Your task to perform on an android device: Set the phone to "Do not disturb". Image 0: 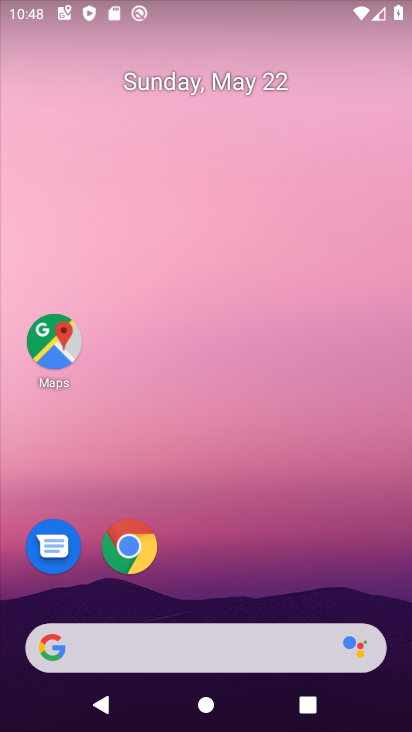
Step 0: drag from (191, 607) to (226, 6)
Your task to perform on an android device: Set the phone to "Do not disturb". Image 1: 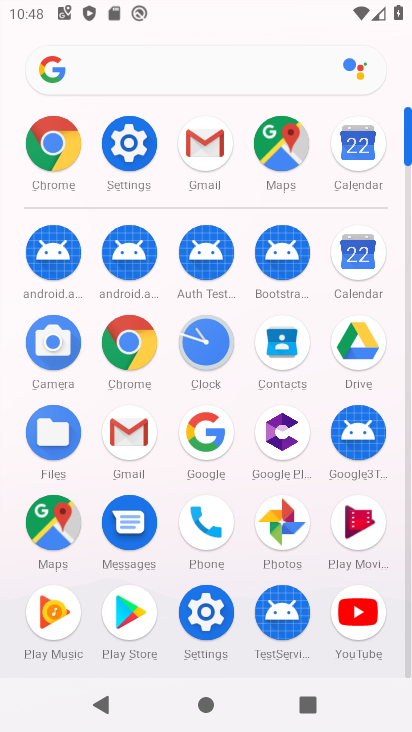
Step 1: click (214, 604)
Your task to perform on an android device: Set the phone to "Do not disturb". Image 2: 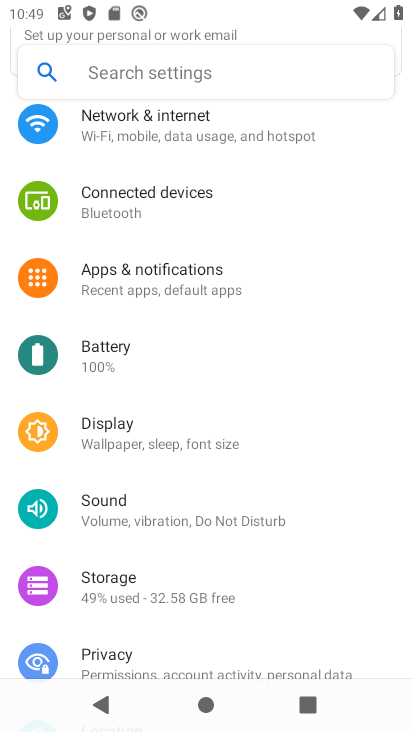
Step 2: click (197, 527)
Your task to perform on an android device: Set the phone to "Do not disturb". Image 3: 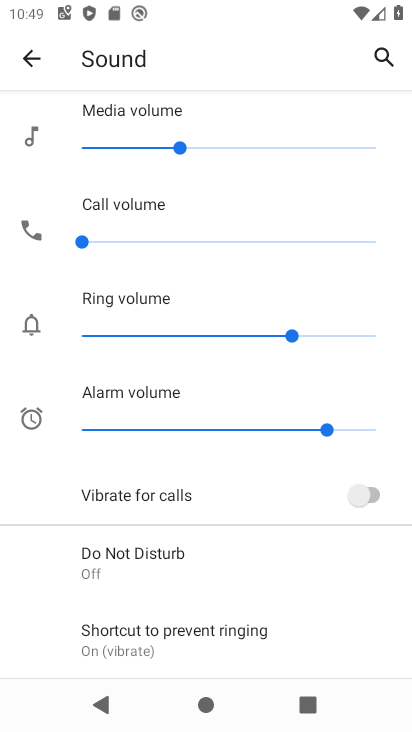
Step 3: click (146, 563)
Your task to perform on an android device: Set the phone to "Do not disturb". Image 4: 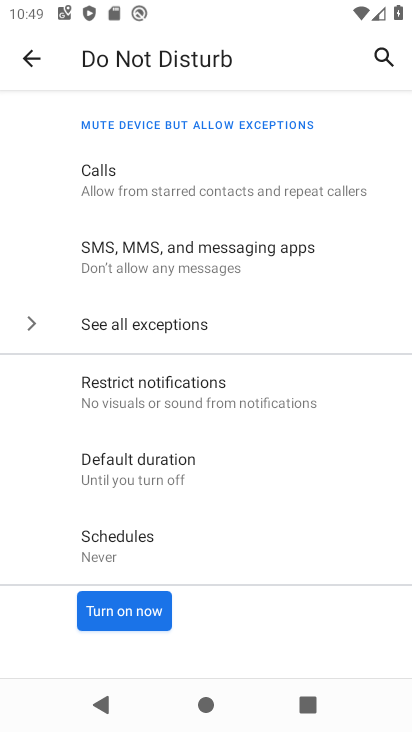
Step 4: click (145, 621)
Your task to perform on an android device: Set the phone to "Do not disturb". Image 5: 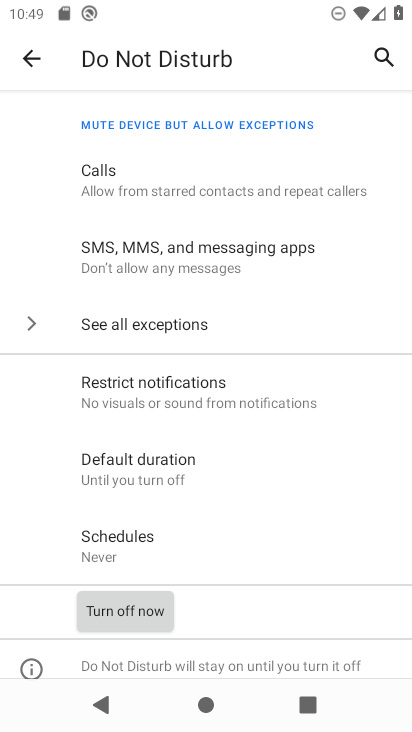
Step 5: task complete